Your task to perform on an android device: turn off location Image 0: 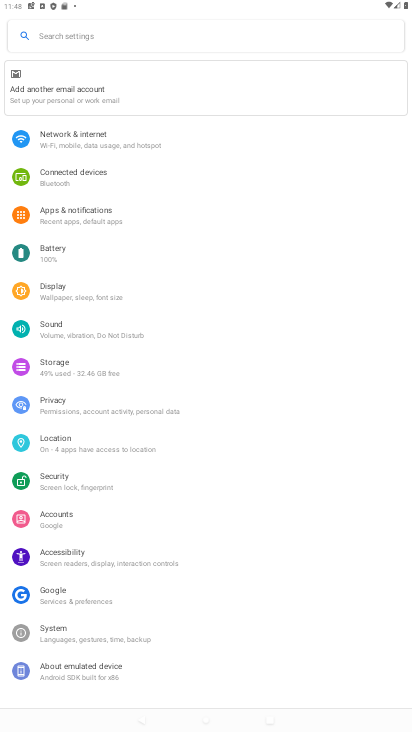
Step 0: click (89, 439)
Your task to perform on an android device: turn off location Image 1: 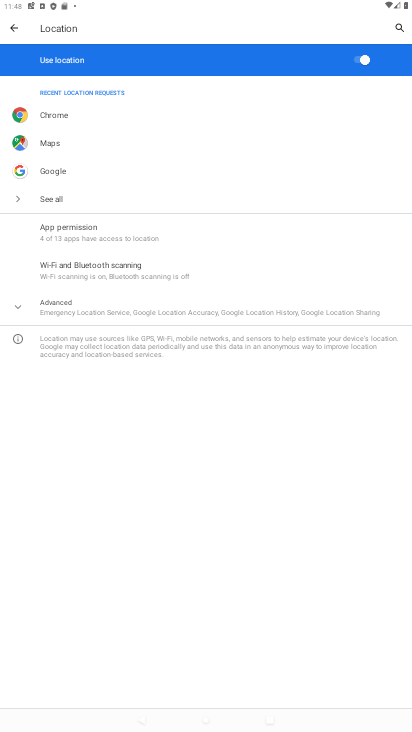
Step 1: click (357, 61)
Your task to perform on an android device: turn off location Image 2: 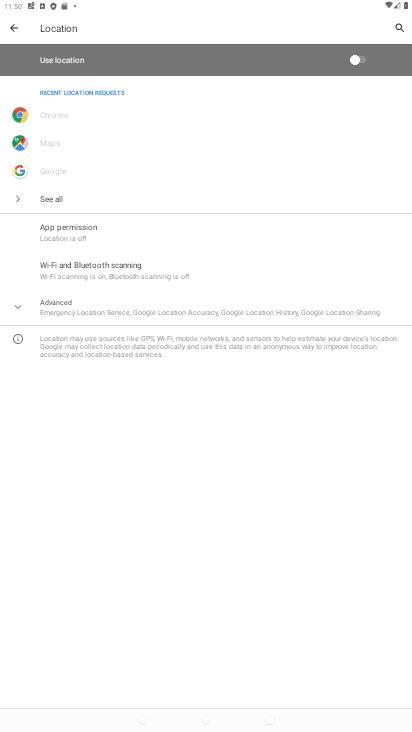
Step 2: task complete